Your task to perform on an android device: View the shopping cart on walmart.com. Search for macbook on walmart.com, select the first entry, and add it to the cart. Image 0: 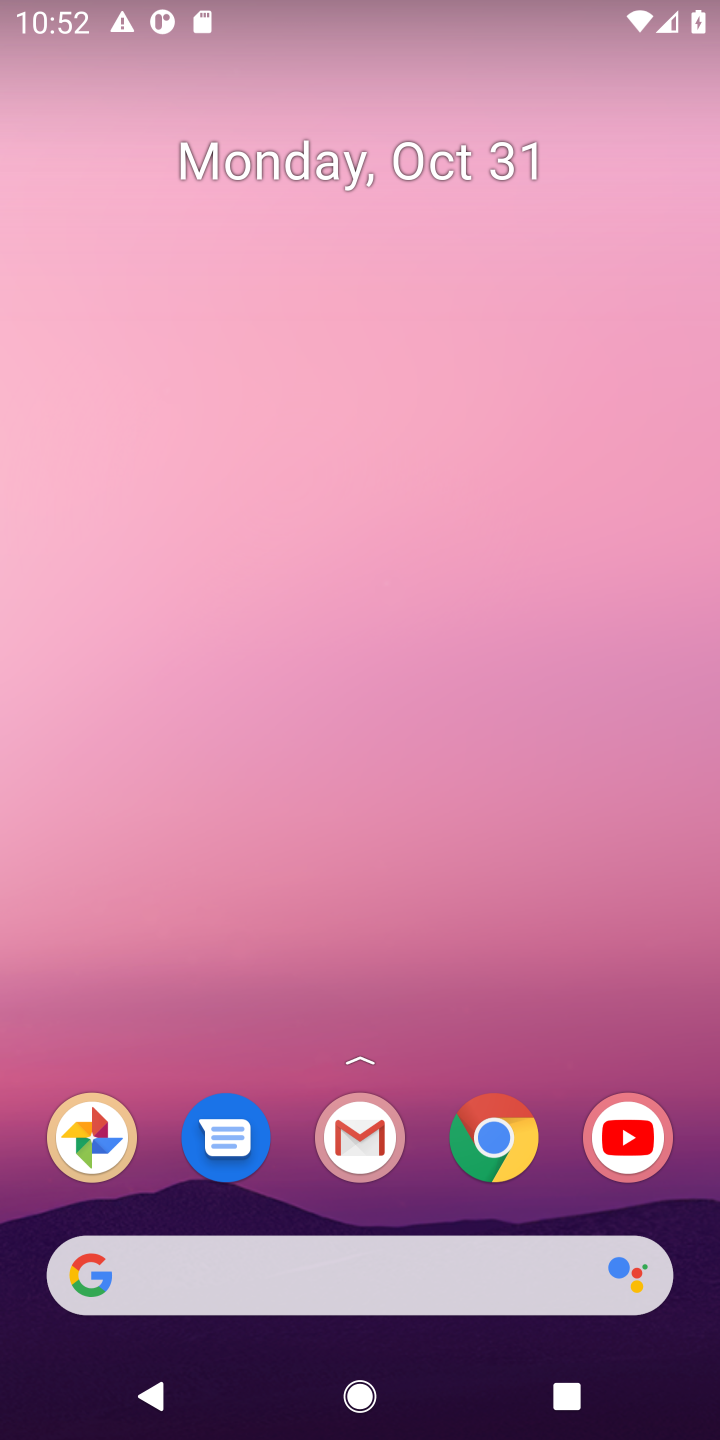
Step 0: press home button
Your task to perform on an android device: View the shopping cart on walmart.com. Search for macbook on walmart.com, select the first entry, and add it to the cart. Image 1: 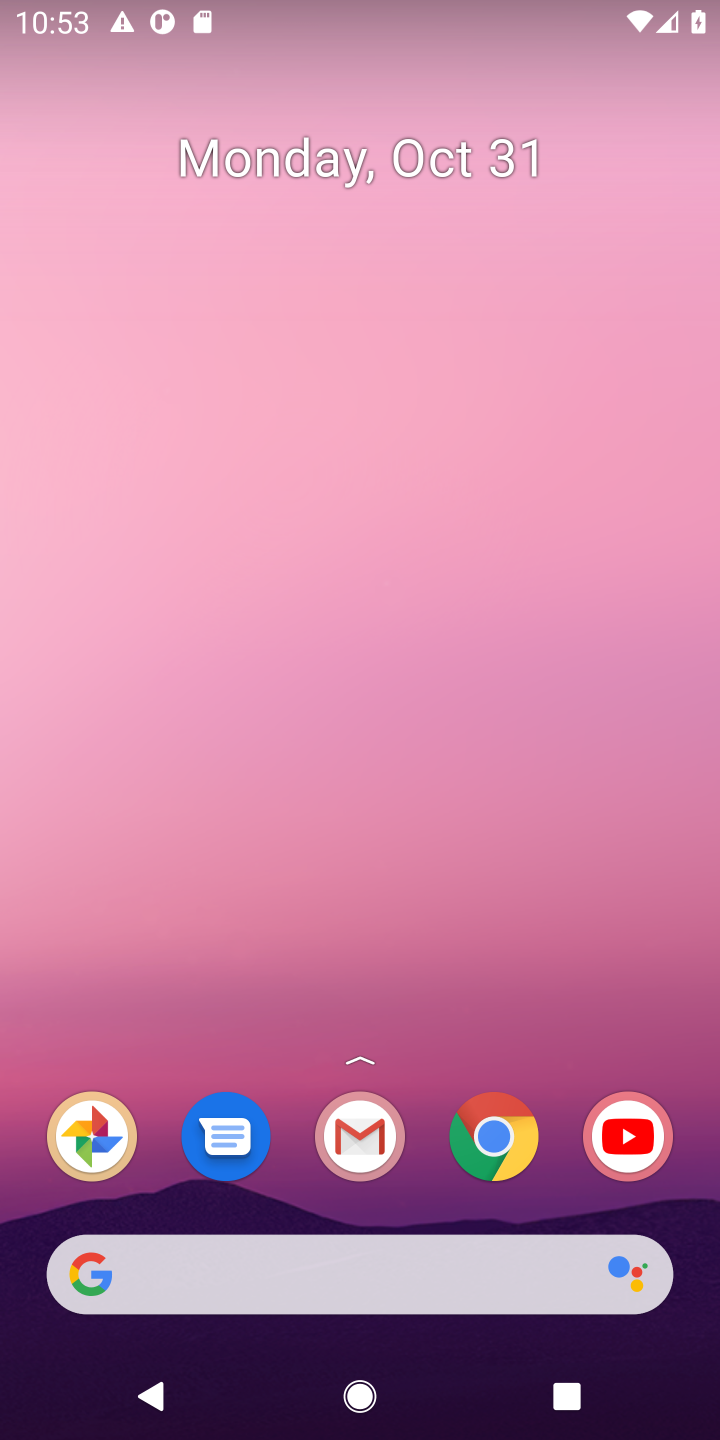
Step 1: click (143, 1269)
Your task to perform on an android device: View the shopping cart on walmart.com. Search for macbook on walmart.com, select the first entry, and add it to the cart. Image 2: 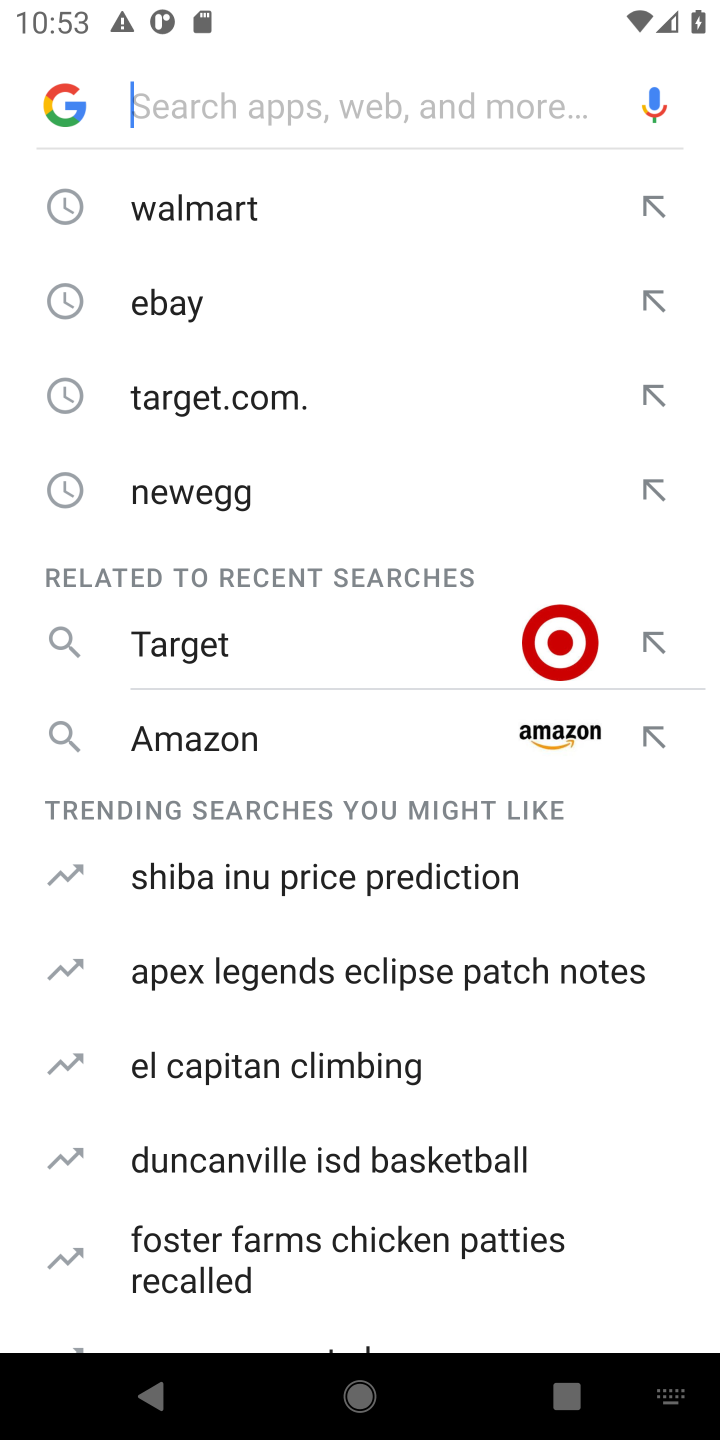
Step 2: type " walmart.com."
Your task to perform on an android device: View the shopping cart on walmart.com. Search for macbook on walmart.com, select the first entry, and add it to the cart. Image 3: 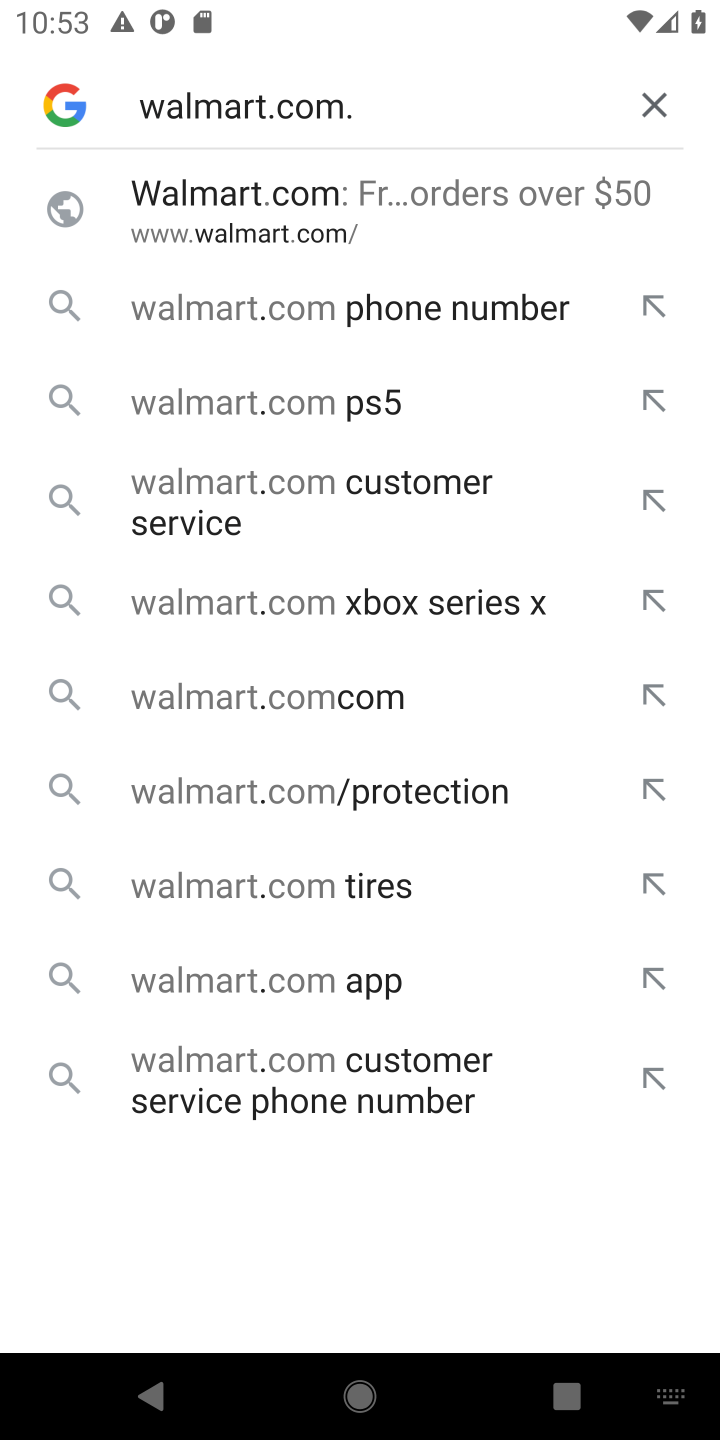
Step 3: press enter
Your task to perform on an android device: View the shopping cart on walmart.com. Search for macbook on walmart.com, select the first entry, and add it to the cart. Image 4: 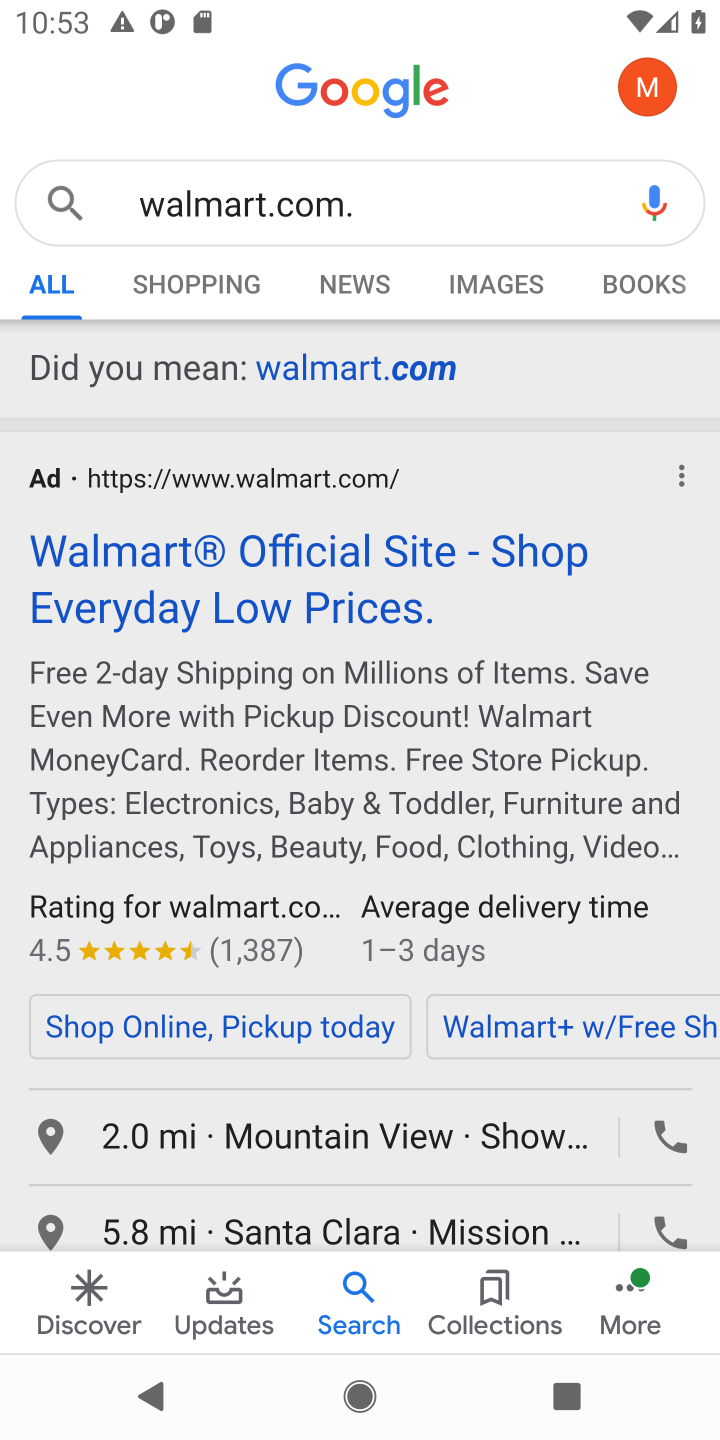
Step 4: click (293, 600)
Your task to perform on an android device: View the shopping cart on walmart.com. Search for macbook on walmart.com, select the first entry, and add it to the cart. Image 5: 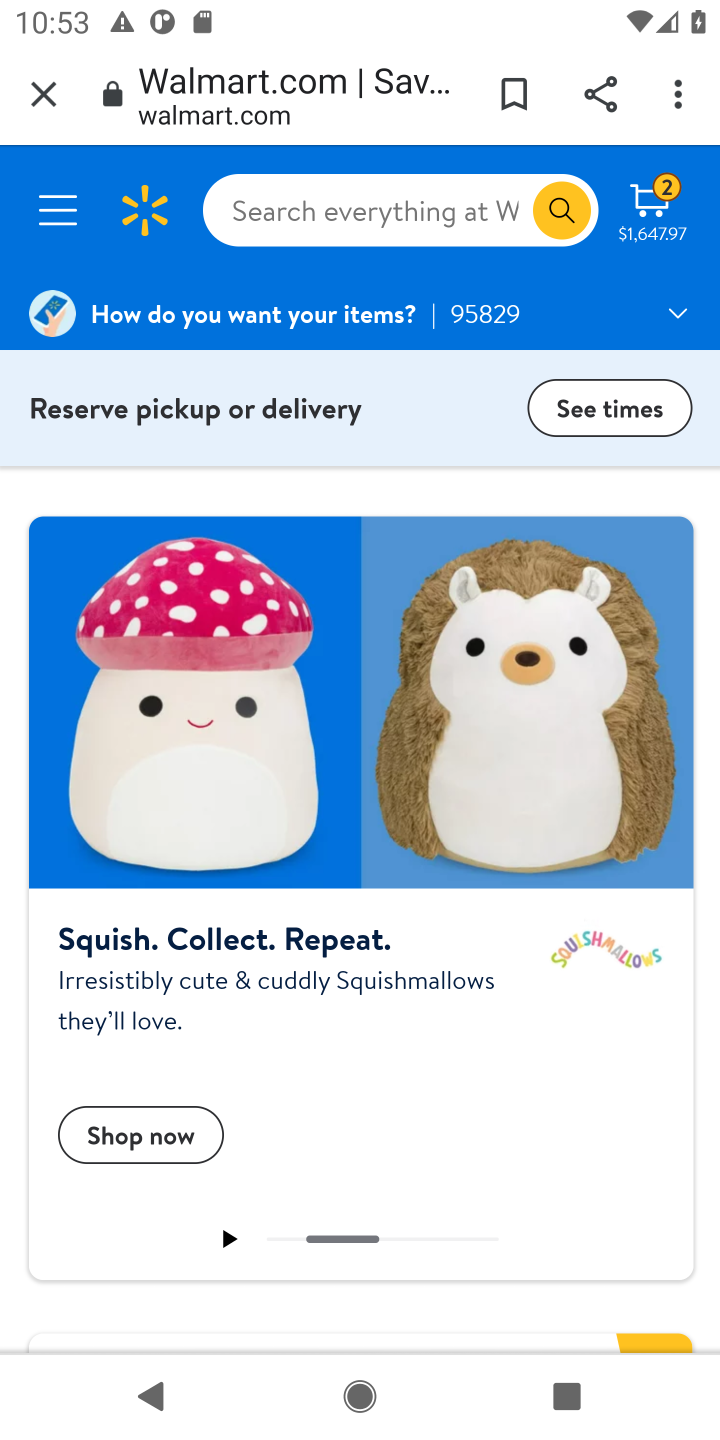
Step 5: click (650, 208)
Your task to perform on an android device: View the shopping cart on walmart.com. Search for macbook on walmart.com, select the first entry, and add it to the cart. Image 6: 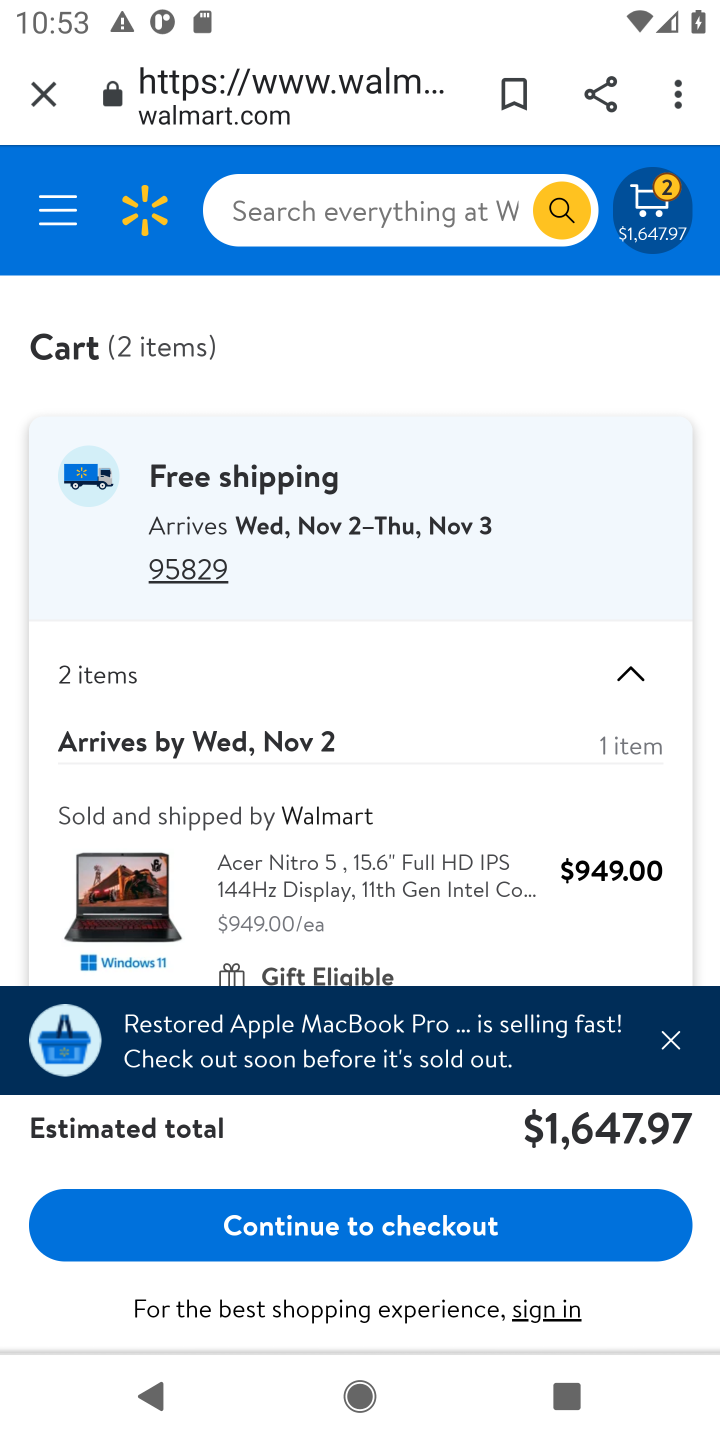
Step 6: click (278, 214)
Your task to perform on an android device: View the shopping cart on walmart.com. Search for macbook on walmart.com, select the first entry, and add it to the cart. Image 7: 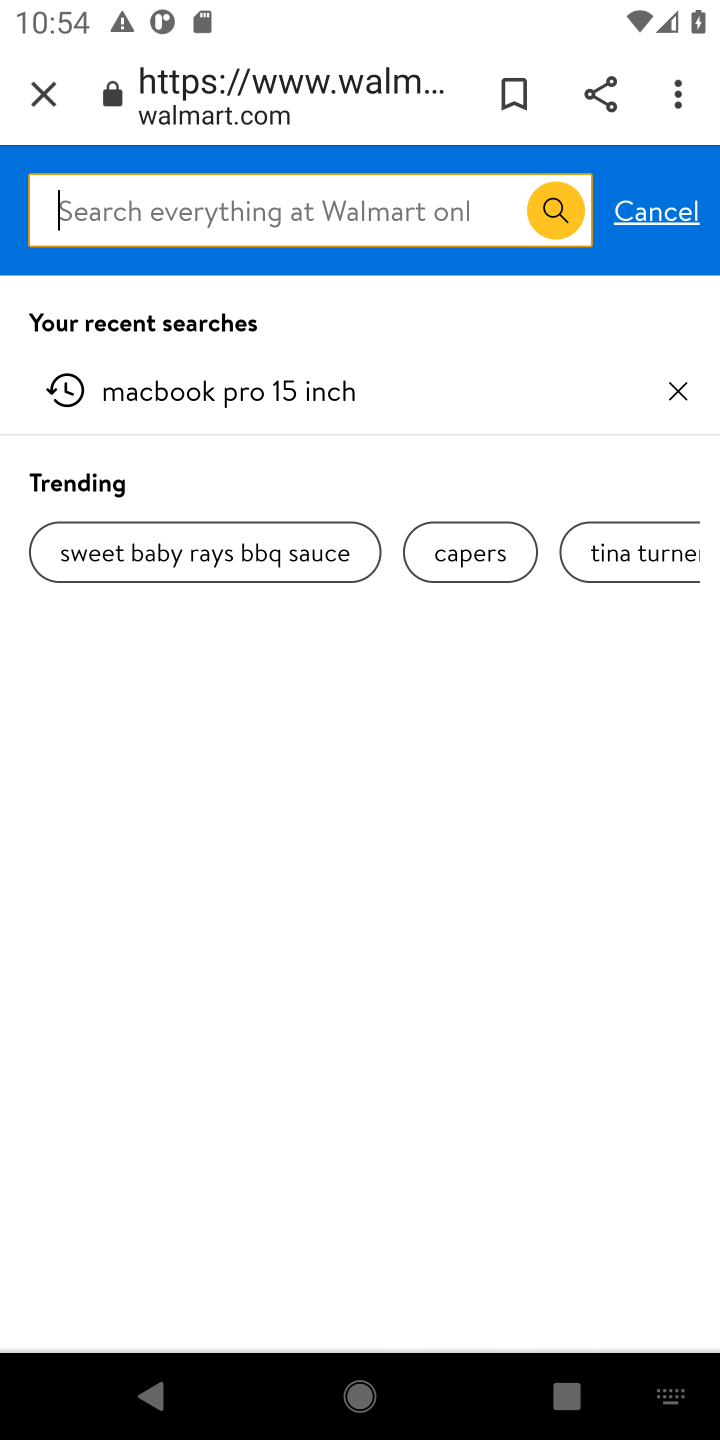
Step 7: type "macbook"
Your task to perform on an android device: View the shopping cart on walmart.com. Search for macbook on walmart.com, select the first entry, and add it to the cart. Image 8: 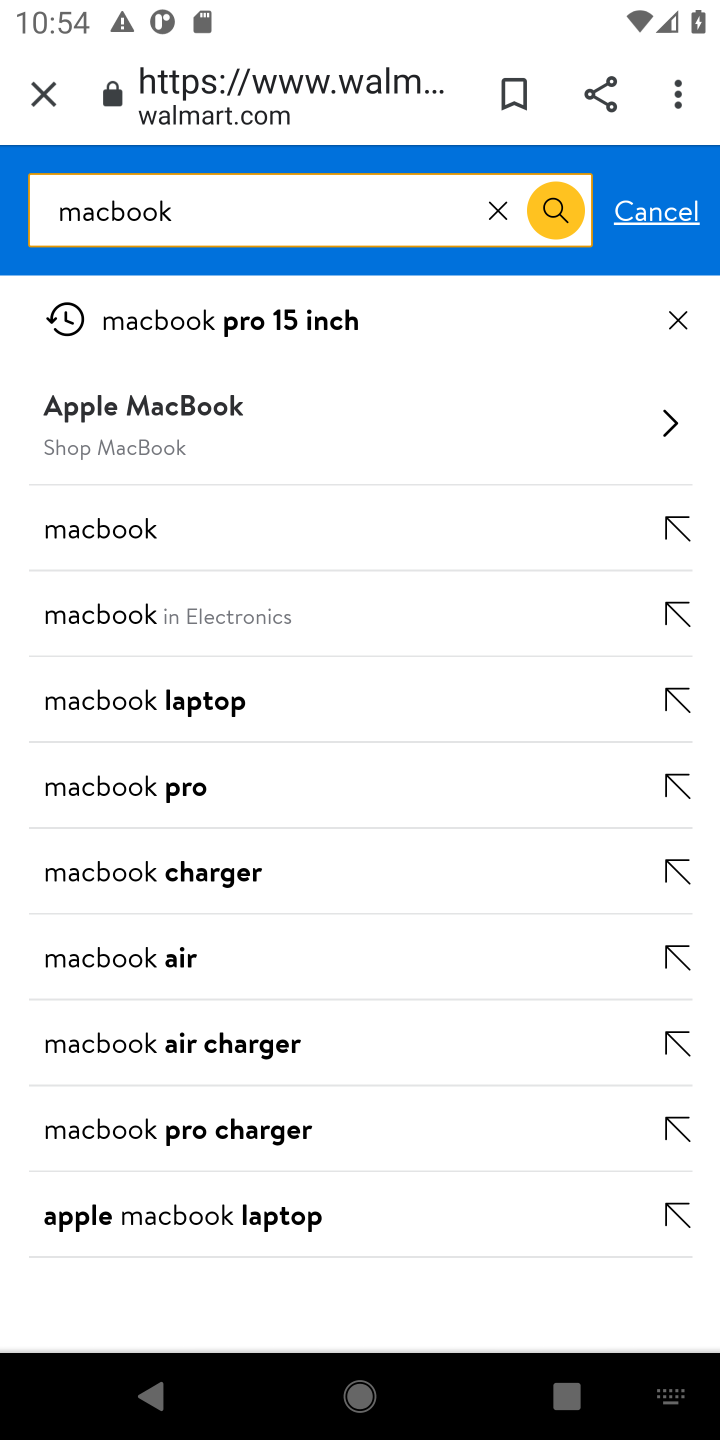
Step 8: click (556, 197)
Your task to perform on an android device: View the shopping cart on walmart.com. Search for macbook on walmart.com, select the first entry, and add it to the cart. Image 9: 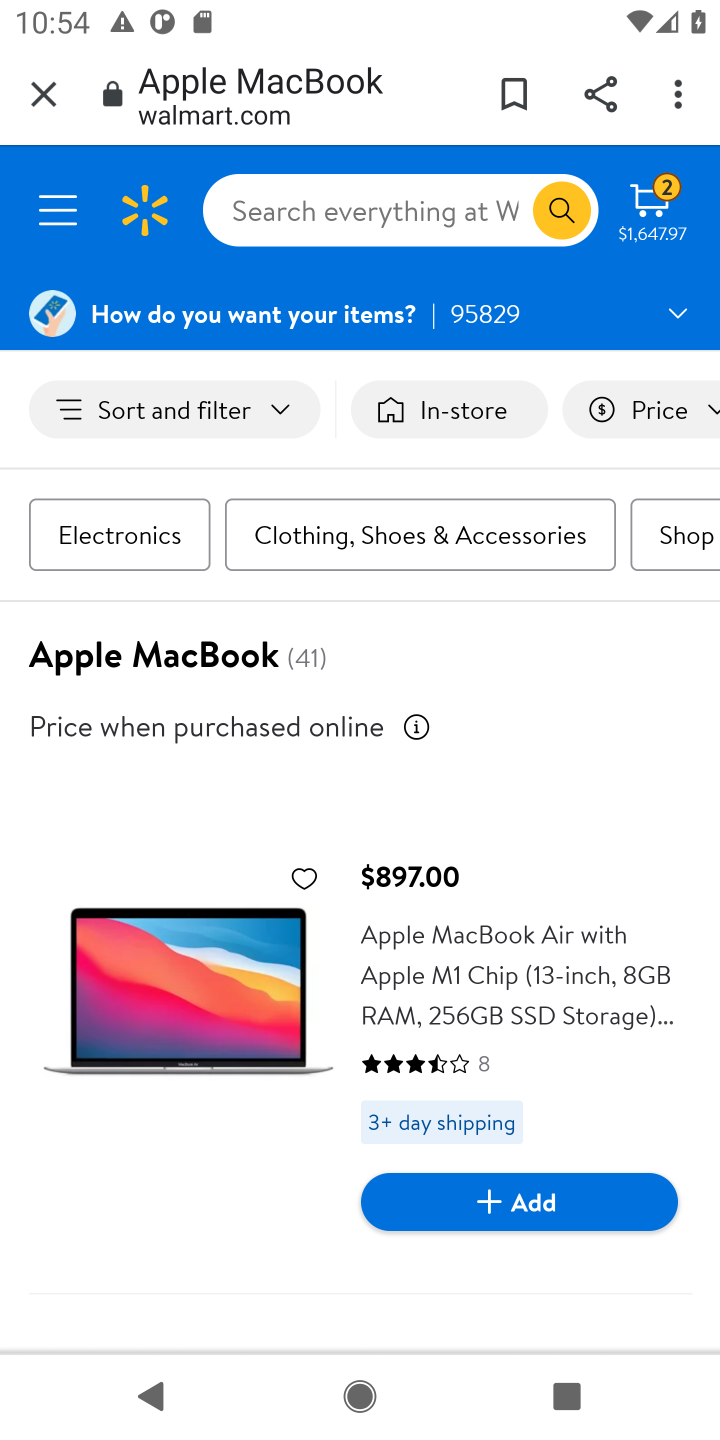
Step 9: click (553, 1195)
Your task to perform on an android device: View the shopping cart on walmart.com. Search for macbook on walmart.com, select the first entry, and add it to the cart. Image 10: 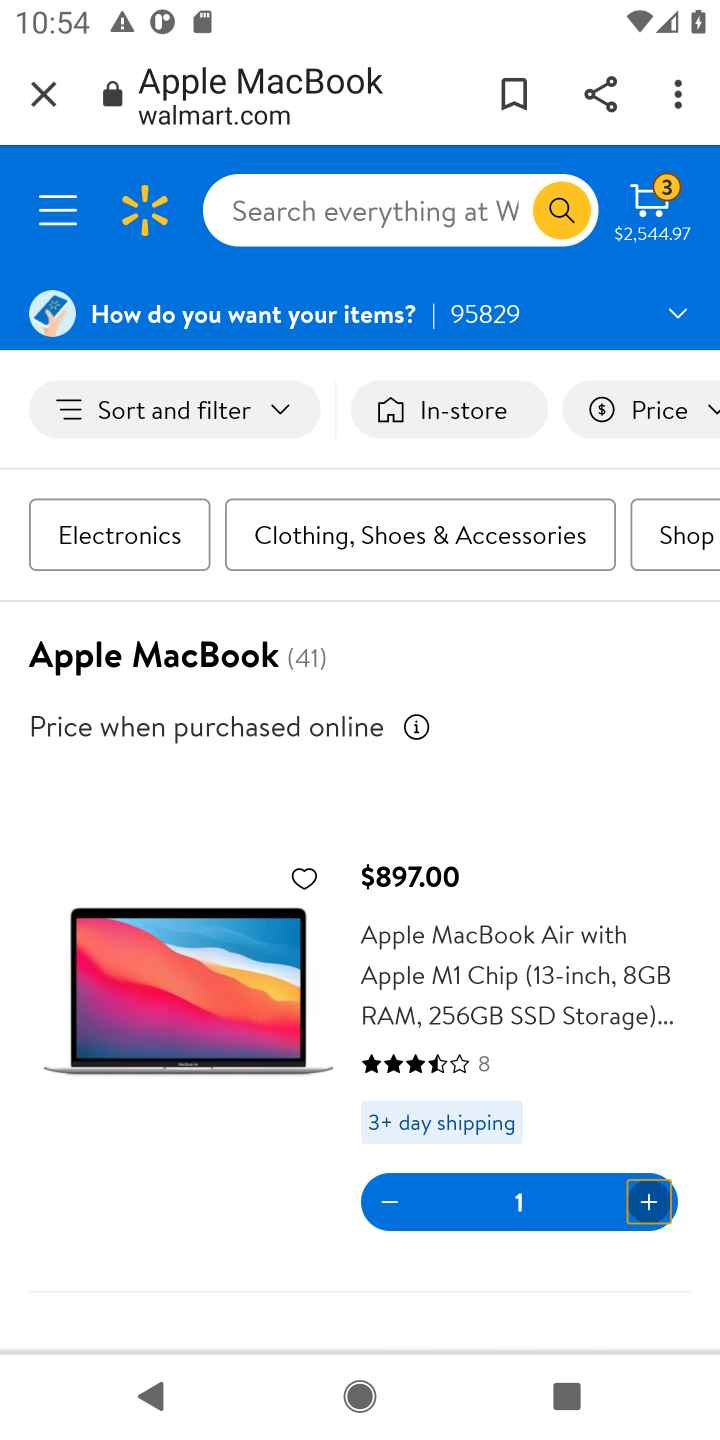
Step 10: task complete